Your task to perform on an android device: Open the phone app and click the voicemail tab. Image 0: 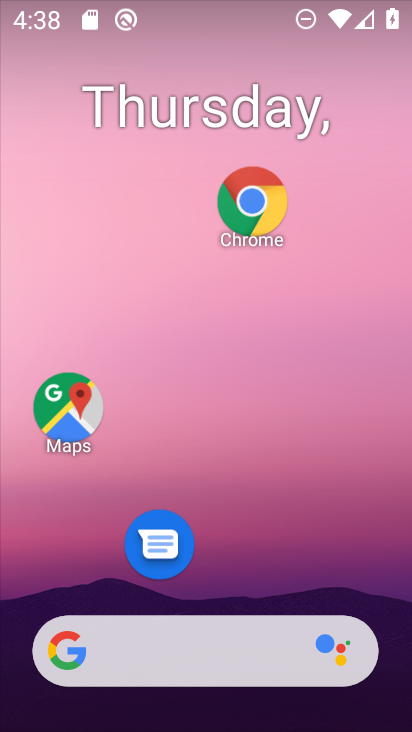
Step 0: drag from (342, 594) to (349, 58)
Your task to perform on an android device: Open the phone app and click the voicemail tab. Image 1: 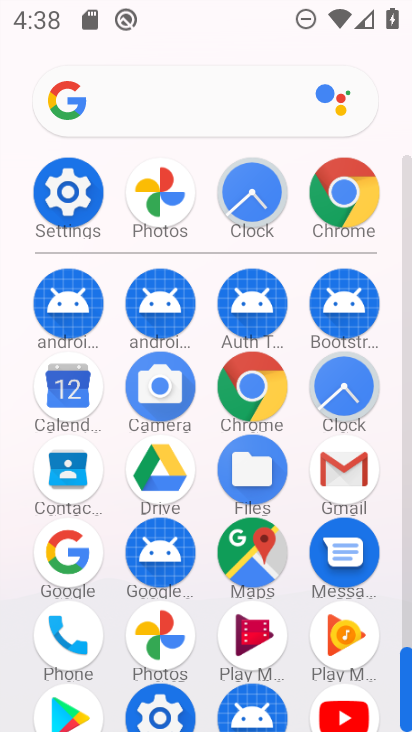
Step 1: drag from (356, 454) to (357, 133)
Your task to perform on an android device: Open the phone app and click the voicemail tab. Image 2: 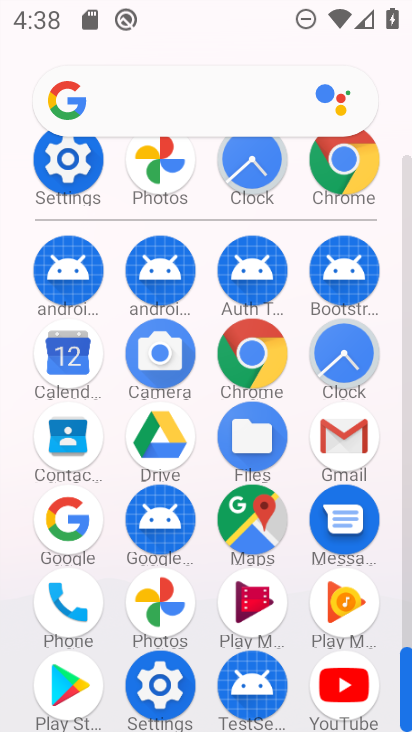
Step 2: click (36, 604)
Your task to perform on an android device: Open the phone app and click the voicemail tab. Image 3: 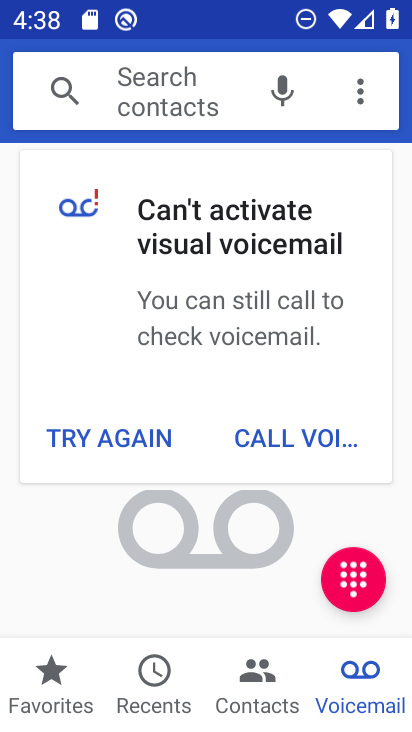
Step 3: click (364, 663)
Your task to perform on an android device: Open the phone app and click the voicemail tab. Image 4: 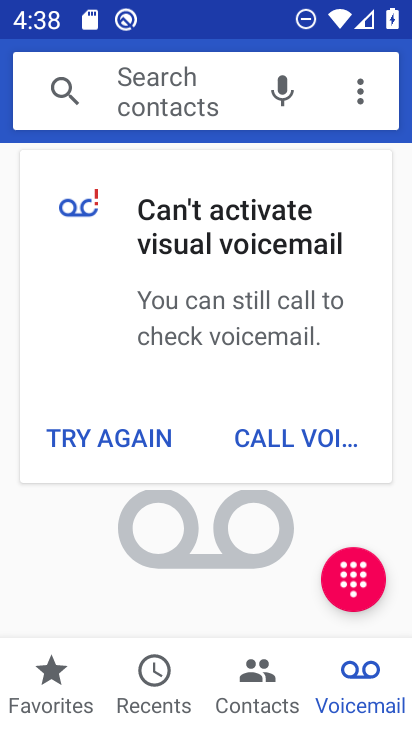
Step 4: task complete